Your task to perform on an android device: star an email in the gmail app Image 0: 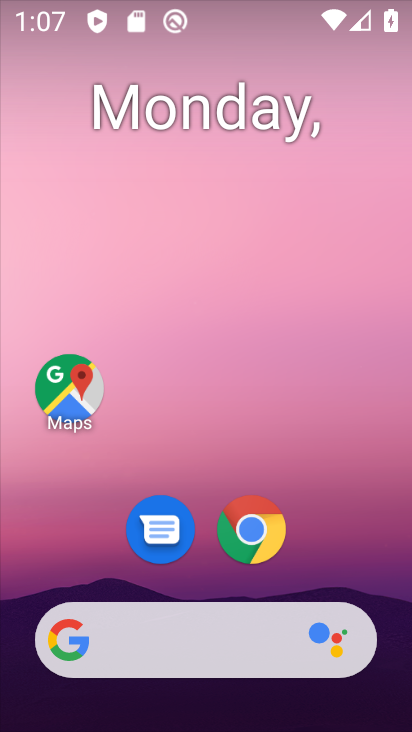
Step 0: drag from (350, 564) to (21, 443)
Your task to perform on an android device: star an email in the gmail app Image 1: 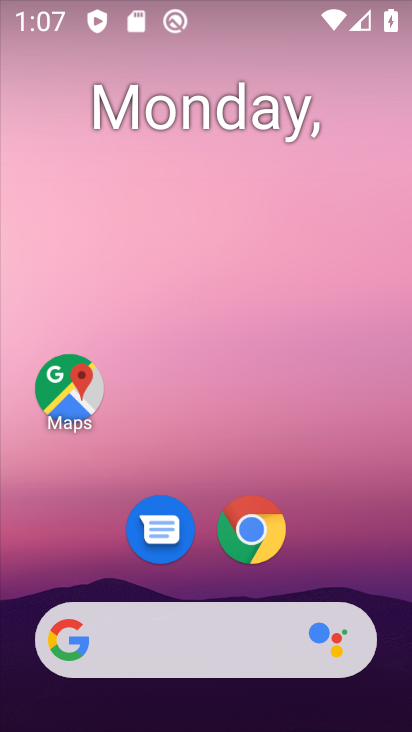
Step 1: drag from (338, 502) to (292, 5)
Your task to perform on an android device: star an email in the gmail app Image 2: 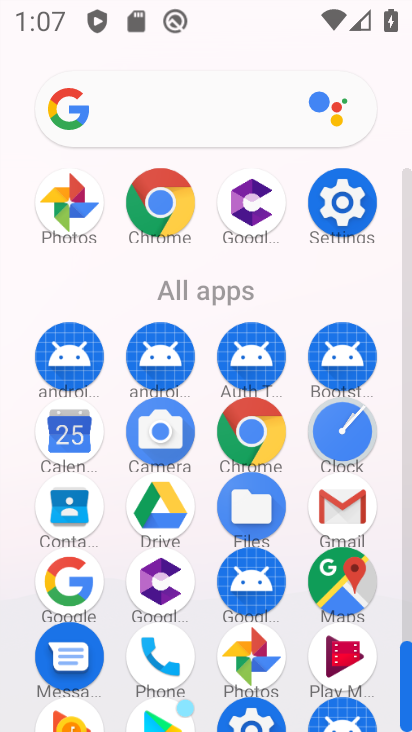
Step 2: click (340, 490)
Your task to perform on an android device: star an email in the gmail app Image 3: 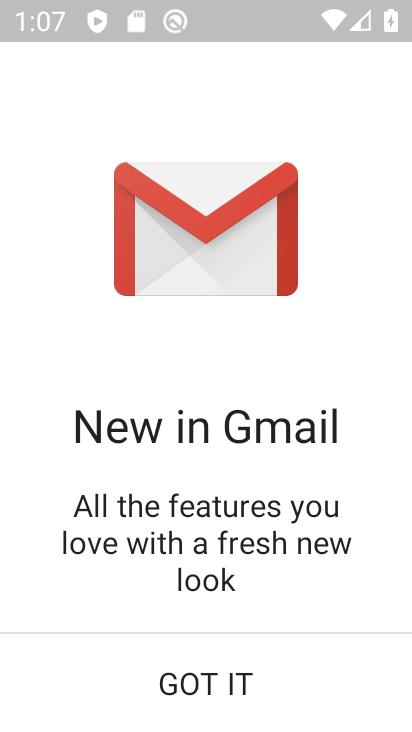
Step 3: click (213, 678)
Your task to perform on an android device: star an email in the gmail app Image 4: 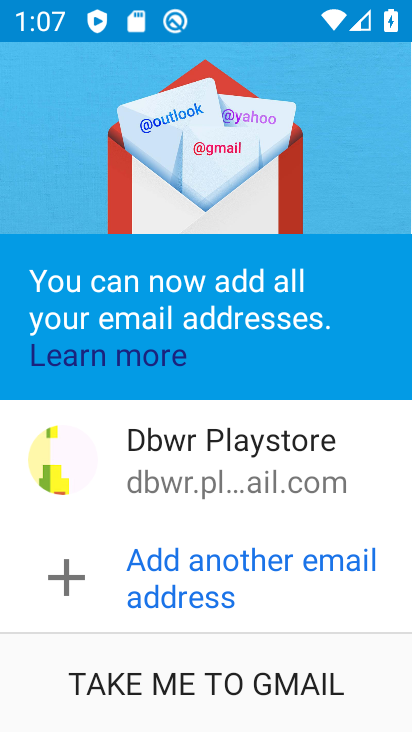
Step 4: click (214, 678)
Your task to perform on an android device: star an email in the gmail app Image 5: 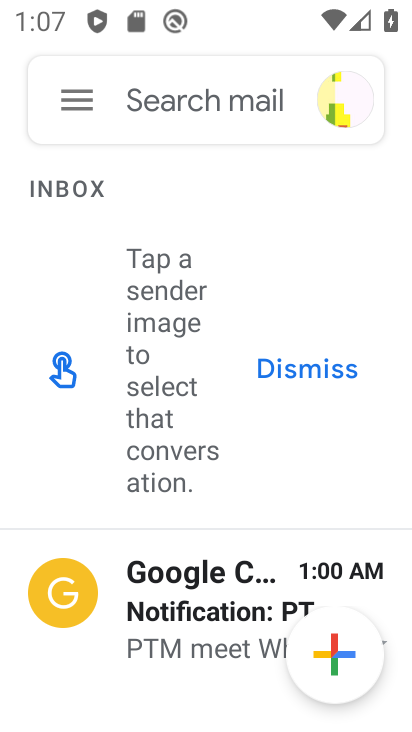
Step 5: drag from (180, 542) to (227, 180)
Your task to perform on an android device: star an email in the gmail app Image 6: 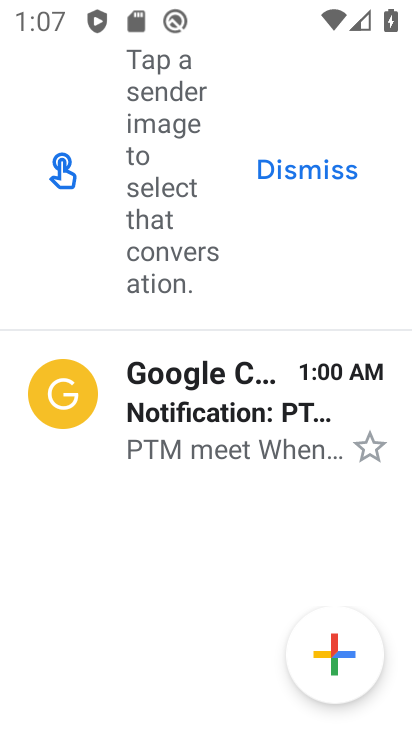
Step 6: click (373, 441)
Your task to perform on an android device: star an email in the gmail app Image 7: 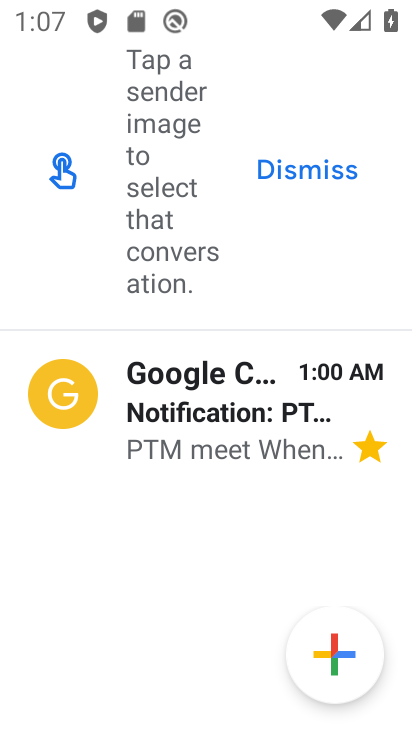
Step 7: task complete